Your task to perform on an android device: open app "Truecaller" (install if not already installed) and go to login screen Image 0: 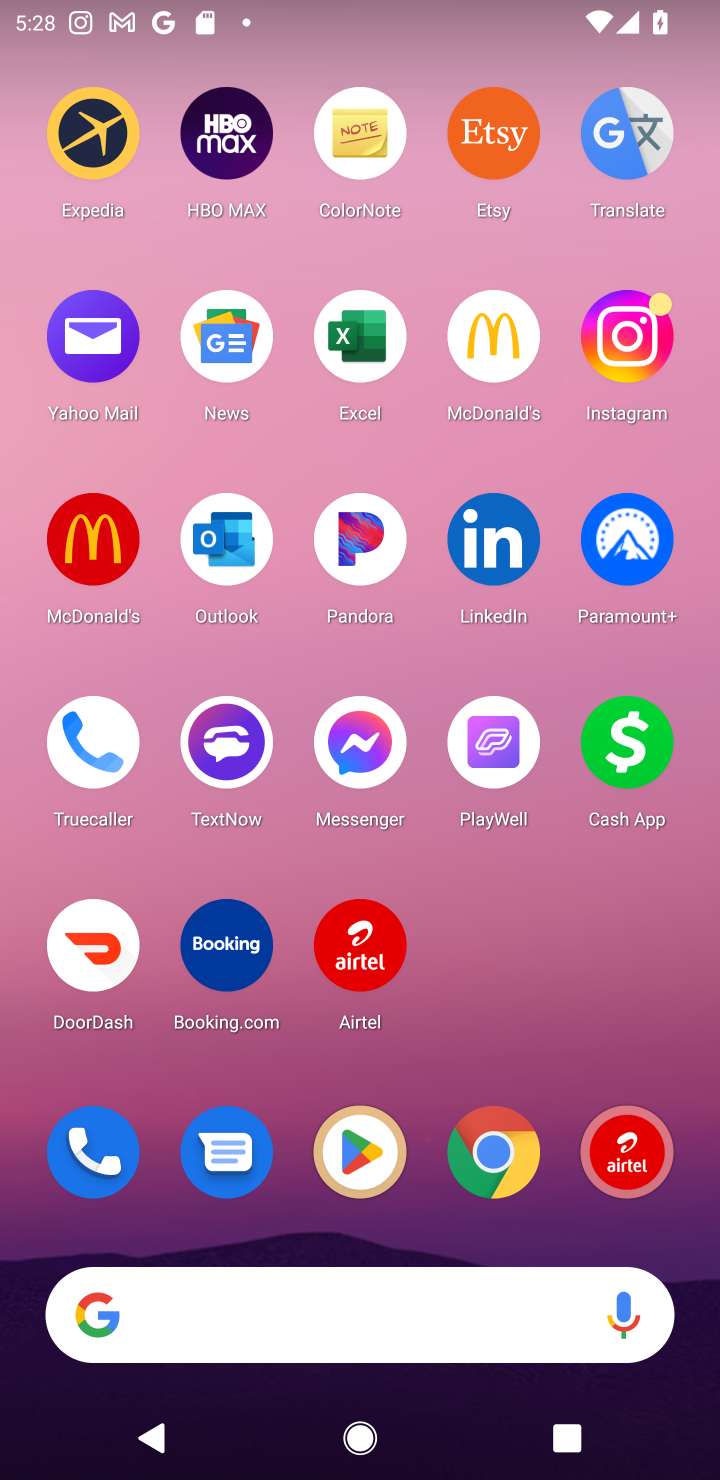
Step 0: click (344, 1161)
Your task to perform on an android device: open app "Truecaller" (install if not already installed) and go to login screen Image 1: 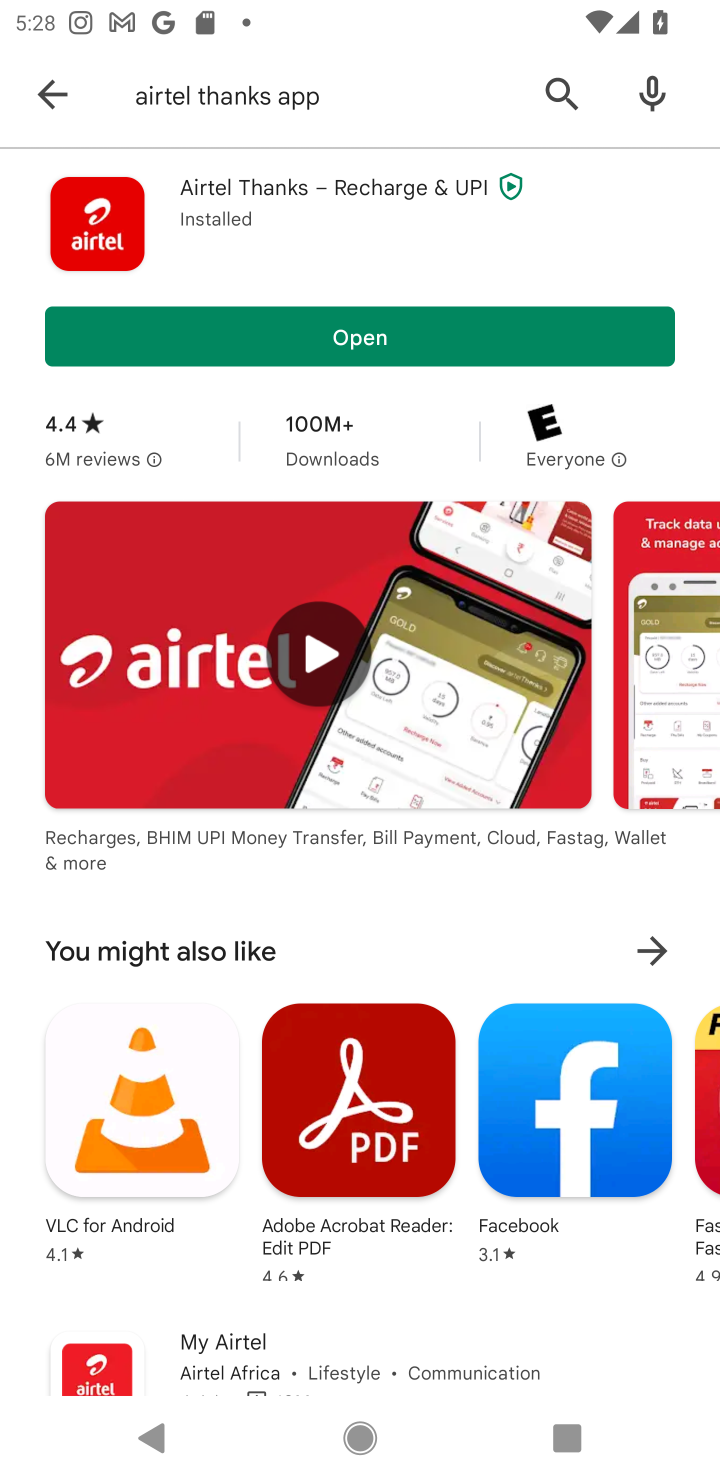
Step 1: click (68, 114)
Your task to perform on an android device: open app "Truecaller" (install if not already installed) and go to login screen Image 2: 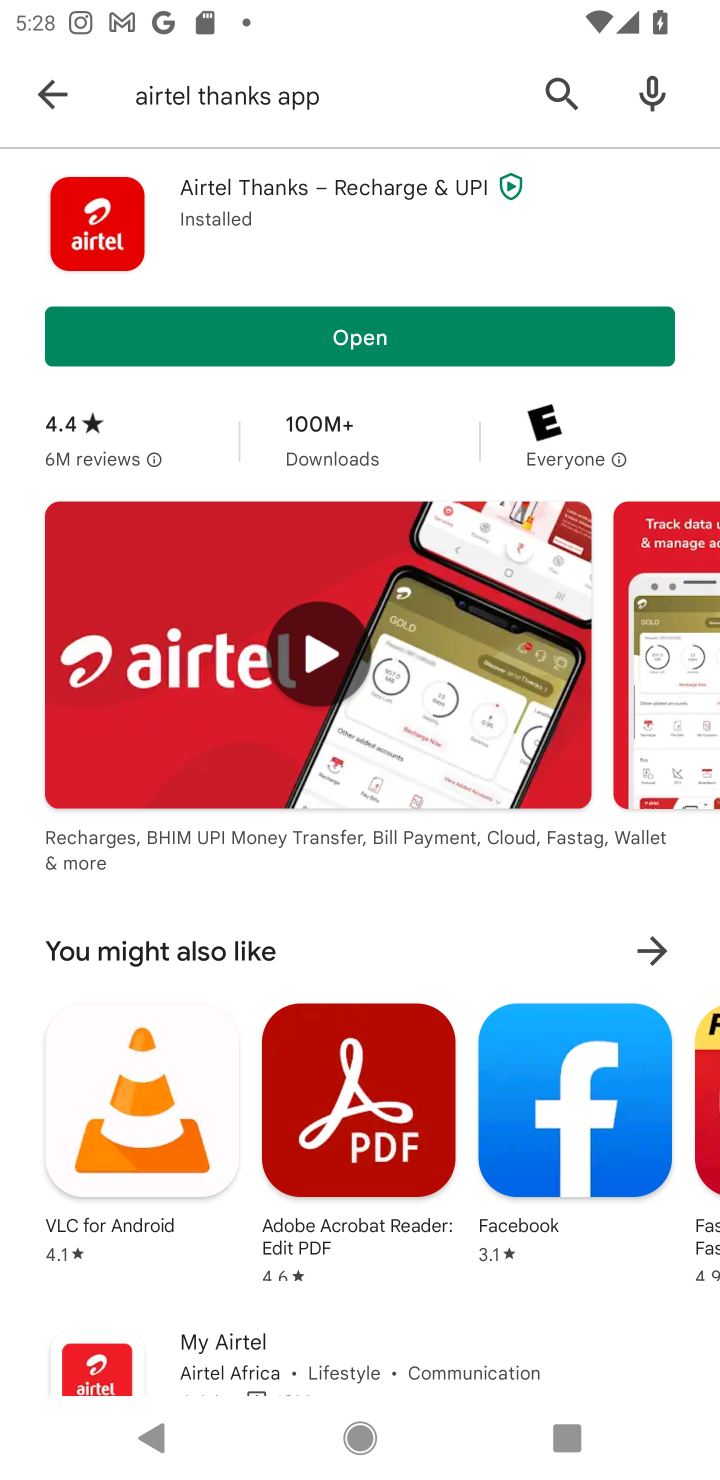
Step 2: click (53, 98)
Your task to perform on an android device: open app "Truecaller" (install if not already installed) and go to login screen Image 3: 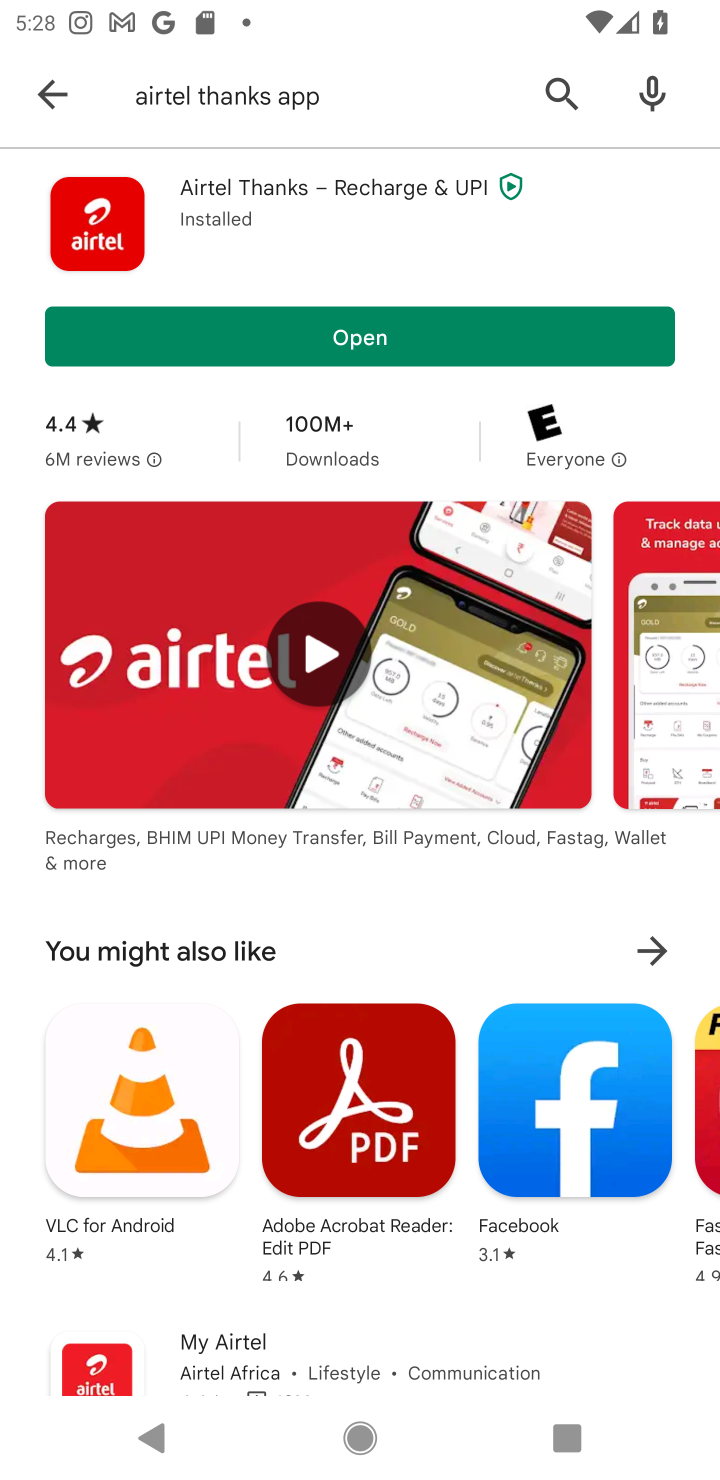
Step 3: click (52, 107)
Your task to perform on an android device: open app "Truecaller" (install if not already installed) and go to login screen Image 4: 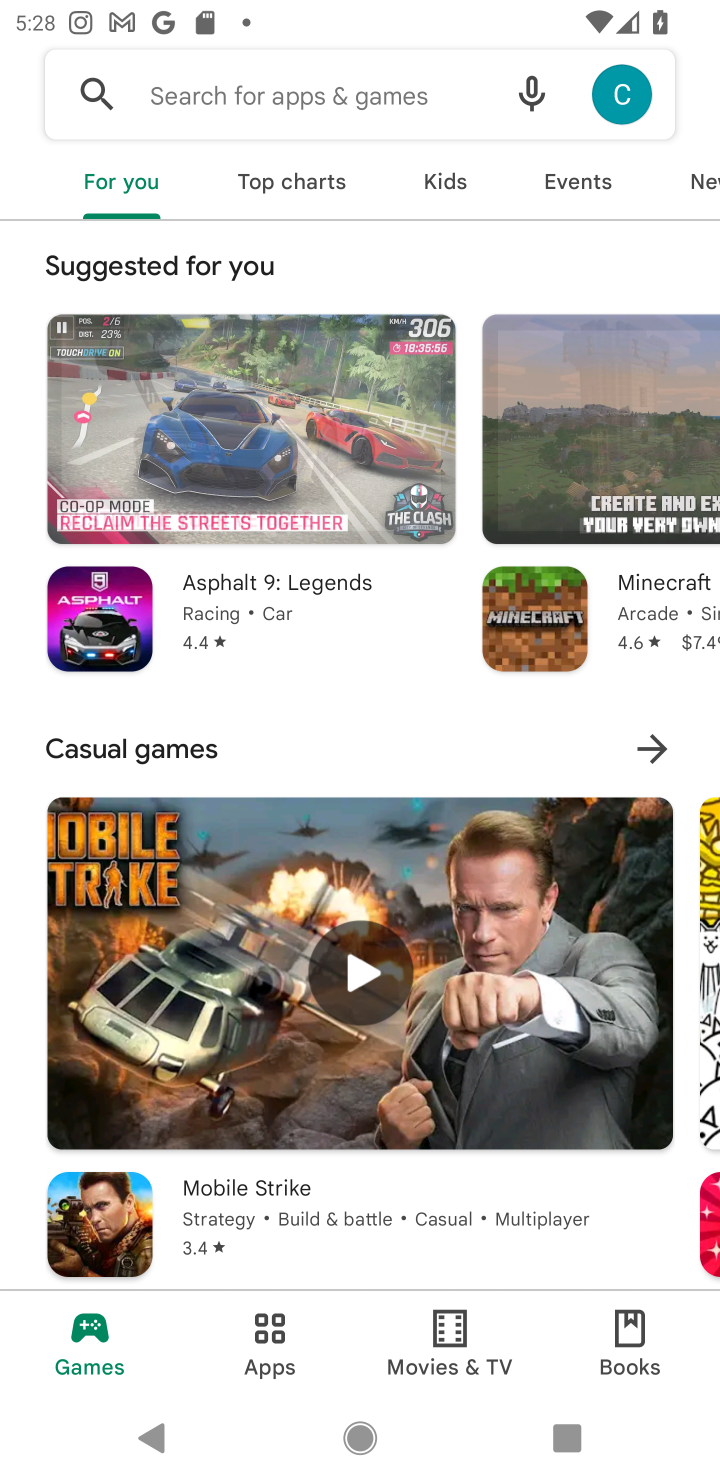
Step 4: click (136, 96)
Your task to perform on an android device: open app "Truecaller" (install if not already installed) and go to login screen Image 5: 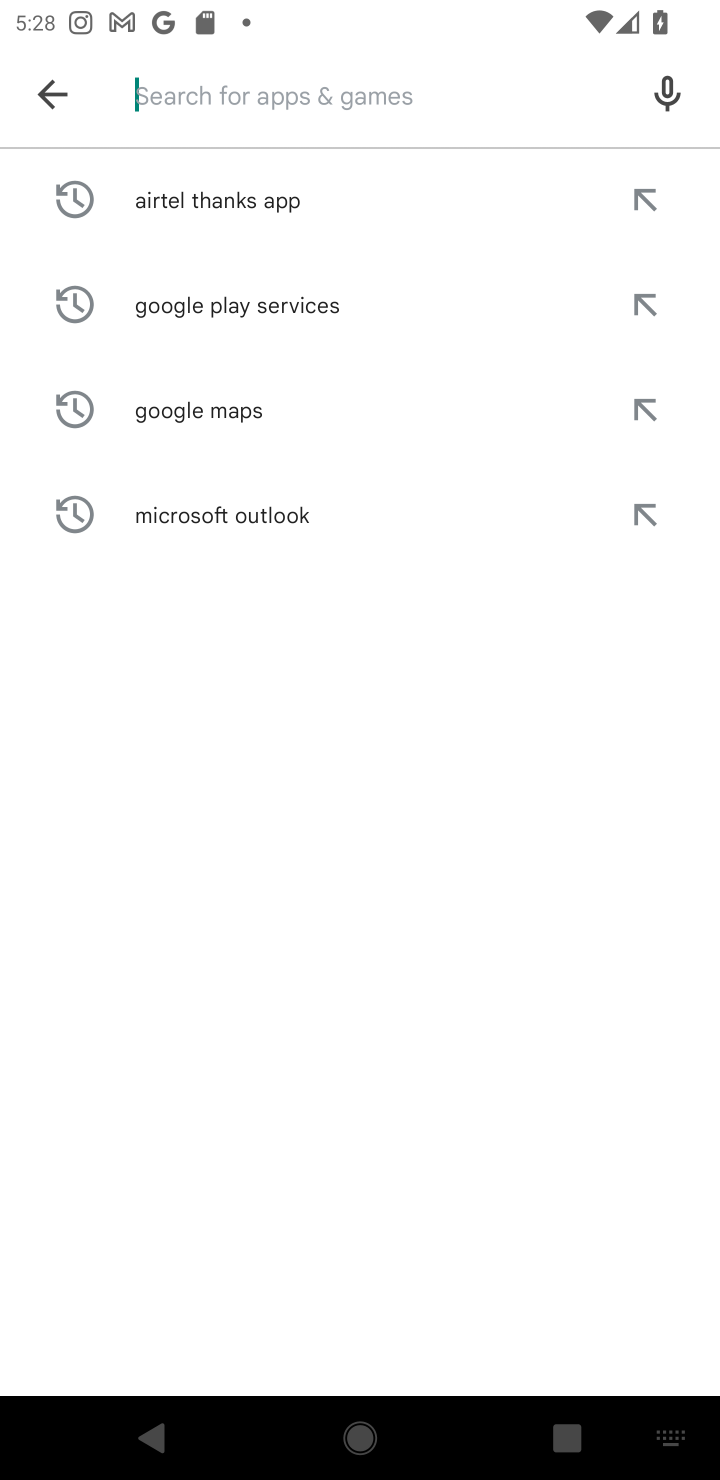
Step 5: type "Truecaller"
Your task to perform on an android device: open app "Truecaller" (install if not already installed) and go to login screen Image 6: 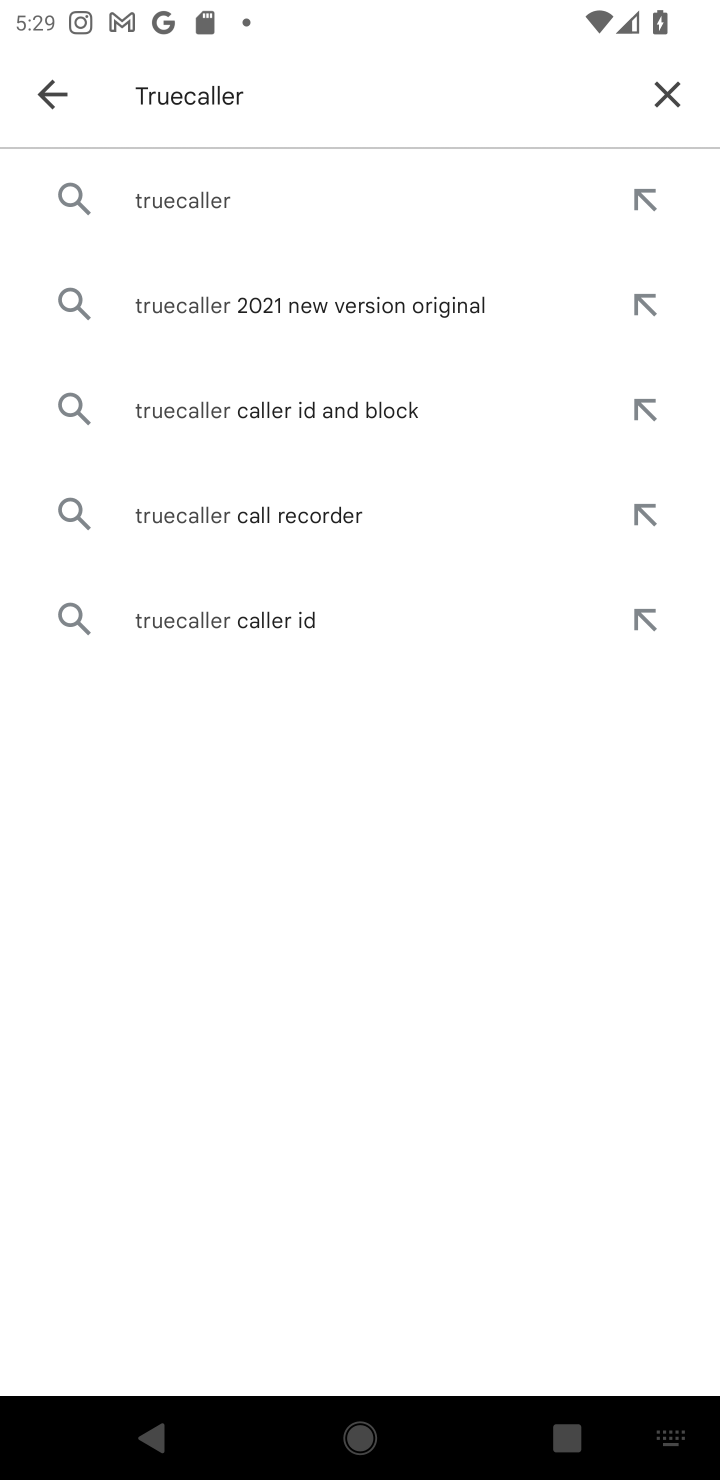
Step 6: click (172, 186)
Your task to perform on an android device: open app "Truecaller" (install if not already installed) and go to login screen Image 7: 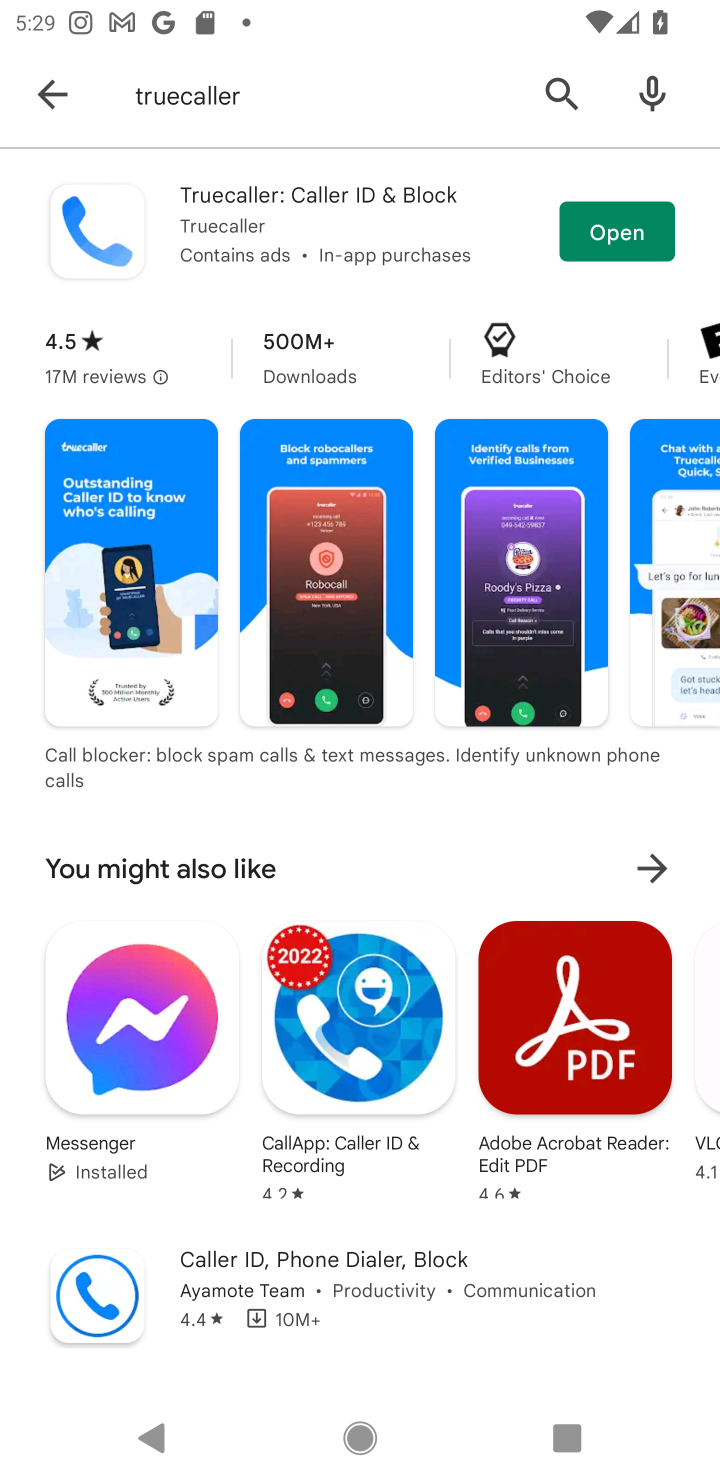
Step 7: click (621, 242)
Your task to perform on an android device: open app "Truecaller" (install if not already installed) and go to login screen Image 8: 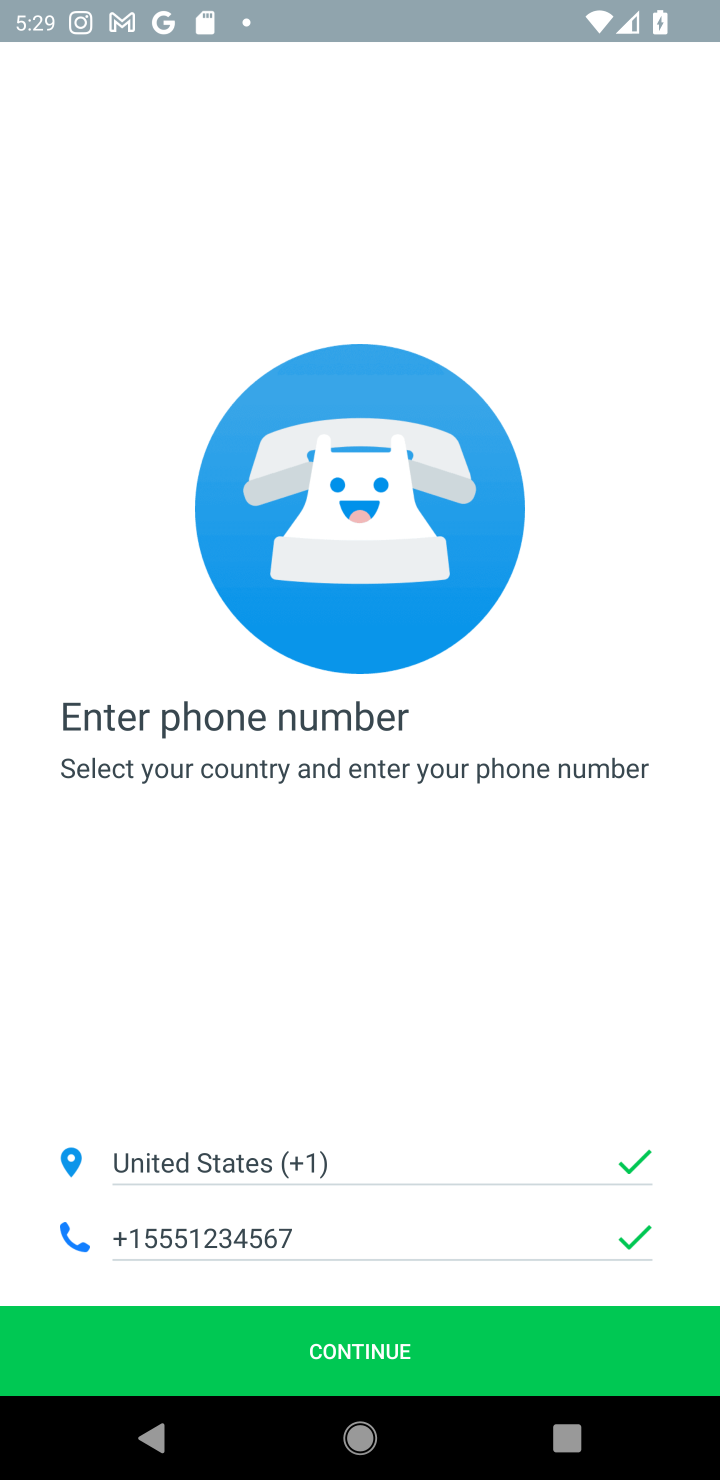
Step 8: task complete